Your task to perform on an android device: Search for "razer blade" on ebay, select the first entry, add it to the cart, then select checkout. Image 0: 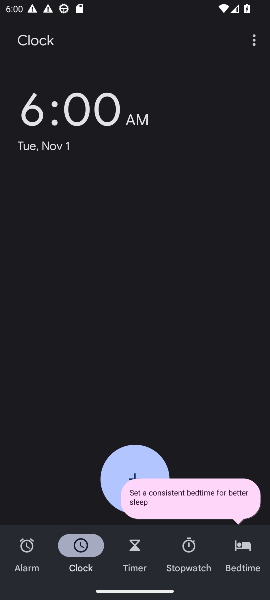
Step 0: press home button
Your task to perform on an android device: Search for "razer blade" on ebay, select the first entry, add it to the cart, then select checkout. Image 1: 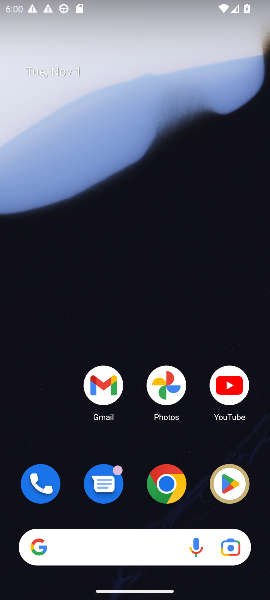
Step 1: click (172, 485)
Your task to perform on an android device: Search for "razer blade" on ebay, select the first entry, add it to the cart, then select checkout. Image 2: 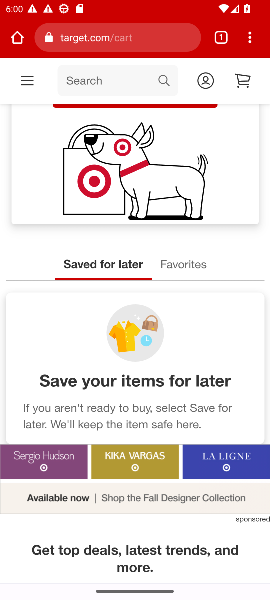
Step 2: click (106, 38)
Your task to perform on an android device: Search for "razer blade" on ebay, select the first entry, add it to the cart, then select checkout. Image 3: 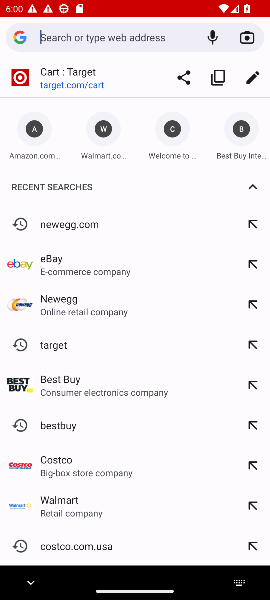
Step 3: type "ebay"
Your task to perform on an android device: Search for "razer blade" on ebay, select the first entry, add it to the cart, then select checkout. Image 4: 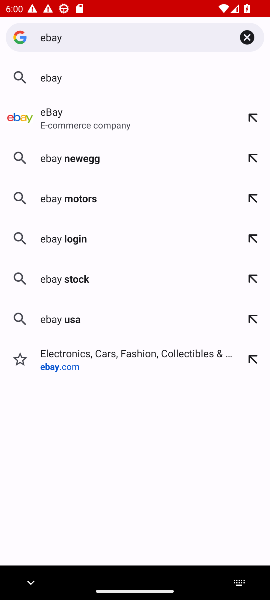
Step 4: click (87, 71)
Your task to perform on an android device: Search for "razer blade" on ebay, select the first entry, add it to the cart, then select checkout. Image 5: 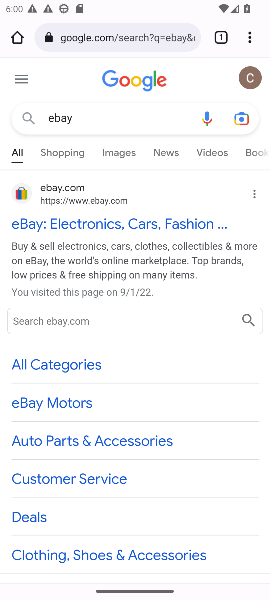
Step 5: click (72, 225)
Your task to perform on an android device: Search for "razer blade" on ebay, select the first entry, add it to the cart, then select checkout. Image 6: 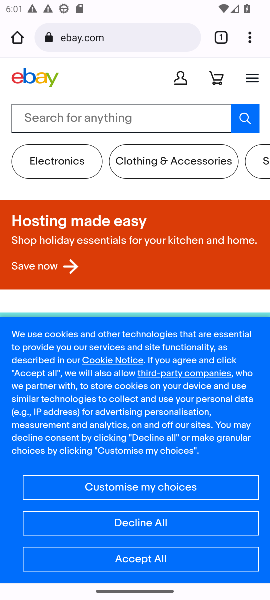
Step 6: click (154, 109)
Your task to perform on an android device: Search for "razer blade" on ebay, select the first entry, add it to the cart, then select checkout. Image 7: 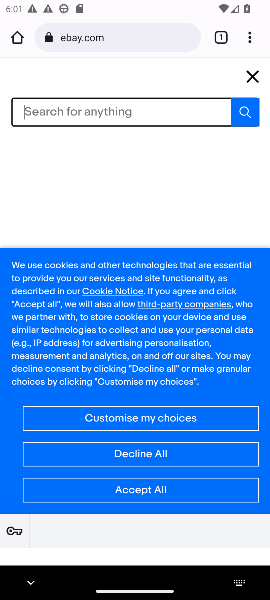
Step 7: type "razer blade"
Your task to perform on an android device: Search for "razer blade" on ebay, select the first entry, add it to the cart, then select checkout. Image 8: 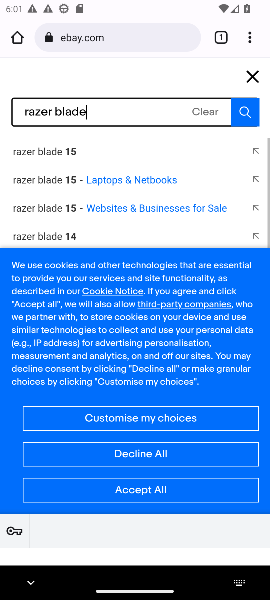
Step 8: click (249, 115)
Your task to perform on an android device: Search for "razer blade" on ebay, select the first entry, add it to the cart, then select checkout. Image 9: 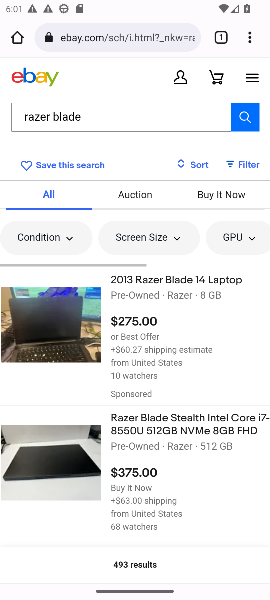
Step 9: click (177, 290)
Your task to perform on an android device: Search for "razer blade" on ebay, select the first entry, add it to the cart, then select checkout. Image 10: 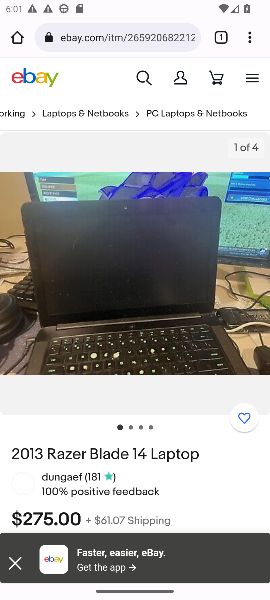
Step 10: drag from (157, 513) to (164, 286)
Your task to perform on an android device: Search for "razer blade" on ebay, select the first entry, add it to the cart, then select checkout. Image 11: 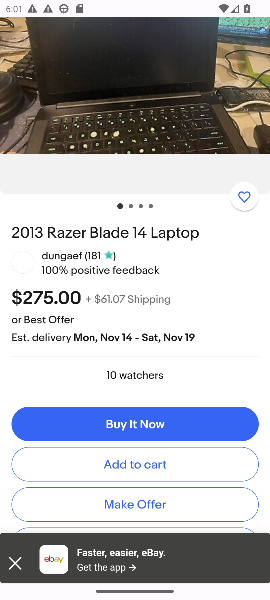
Step 11: click (169, 461)
Your task to perform on an android device: Search for "razer blade" on ebay, select the first entry, add it to the cart, then select checkout. Image 12: 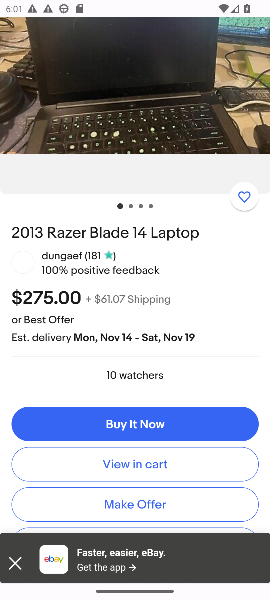
Step 12: click (164, 462)
Your task to perform on an android device: Search for "razer blade" on ebay, select the first entry, add it to the cart, then select checkout. Image 13: 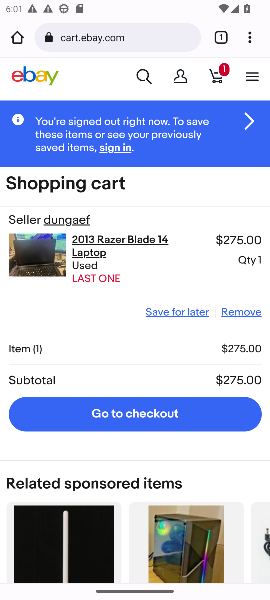
Step 13: click (200, 417)
Your task to perform on an android device: Search for "razer blade" on ebay, select the first entry, add it to the cart, then select checkout. Image 14: 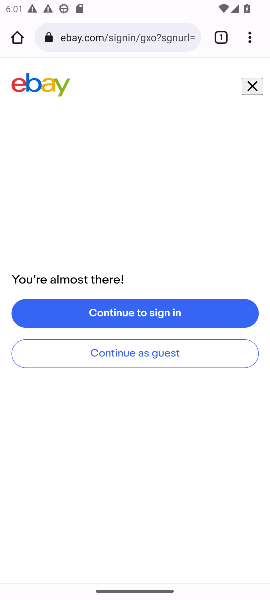
Step 14: task complete